Your task to perform on an android device: Open calendar and show me the second week of next month Image 0: 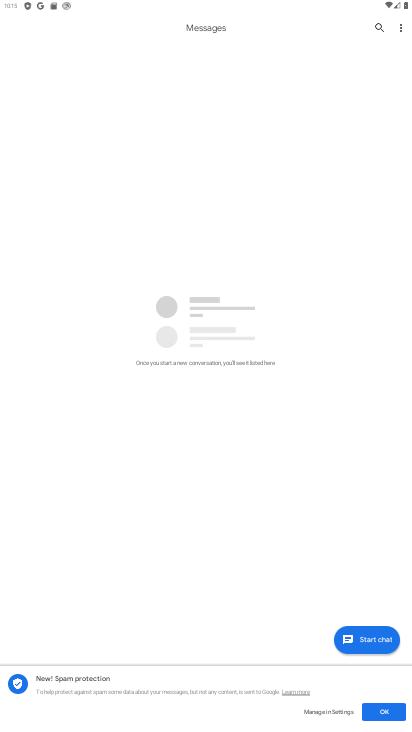
Step 0: press home button
Your task to perform on an android device: Open calendar and show me the second week of next month Image 1: 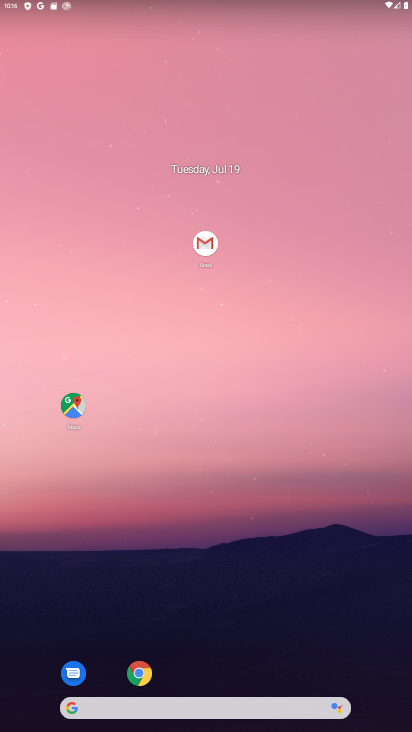
Step 1: drag from (327, 578) to (283, 192)
Your task to perform on an android device: Open calendar and show me the second week of next month Image 2: 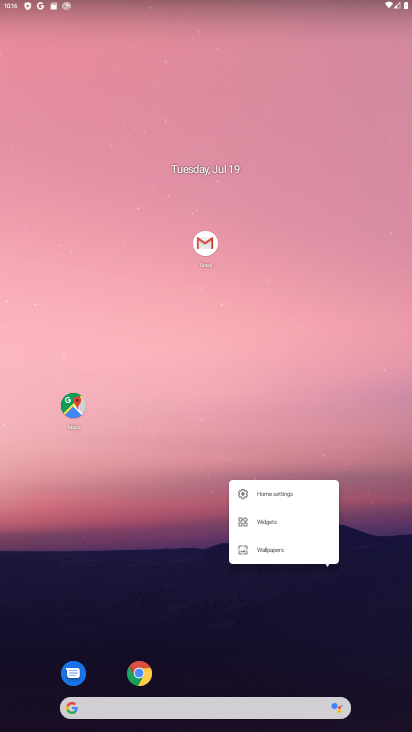
Step 2: drag from (138, 542) to (207, 398)
Your task to perform on an android device: Open calendar and show me the second week of next month Image 3: 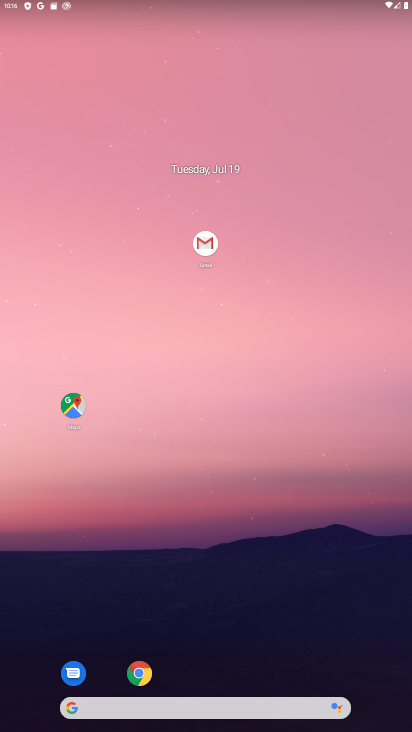
Step 3: drag from (215, 579) to (176, 600)
Your task to perform on an android device: Open calendar and show me the second week of next month Image 4: 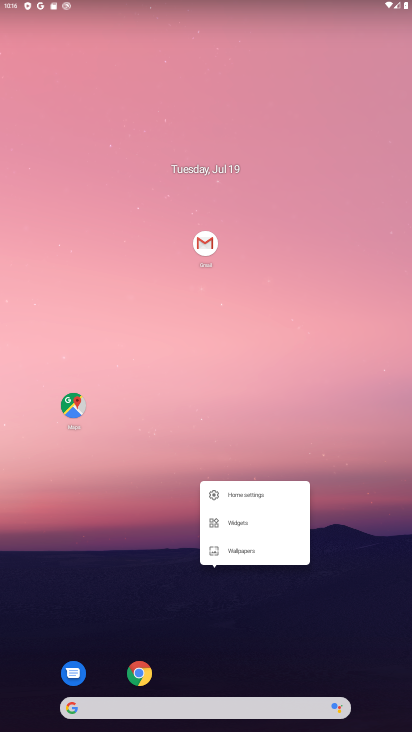
Step 4: drag from (201, 655) to (193, 335)
Your task to perform on an android device: Open calendar and show me the second week of next month Image 5: 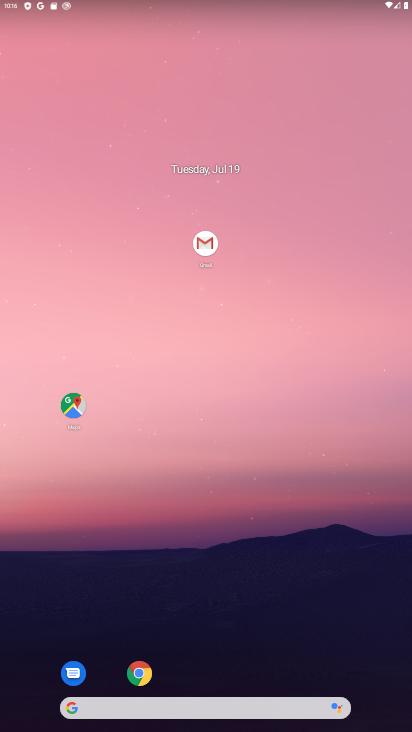
Step 5: drag from (235, 588) to (226, 362)
Your task to perform on an android device: Open calendar and show me the second week of next month Image 6: 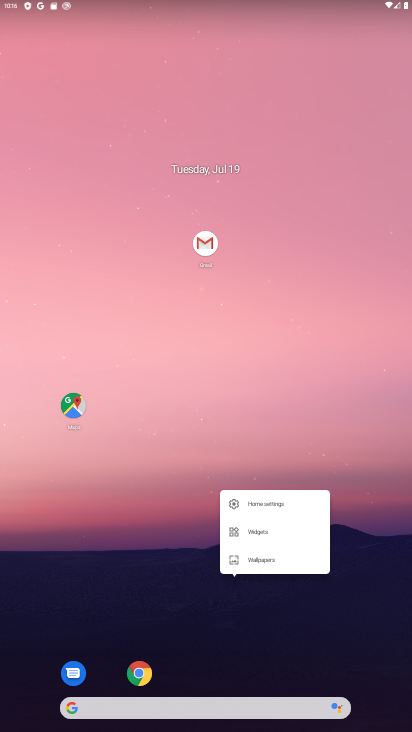
Step 6: click (226, 362)
Your task to perform on an android device: Open calendar and show me the second week of next month Image 7: 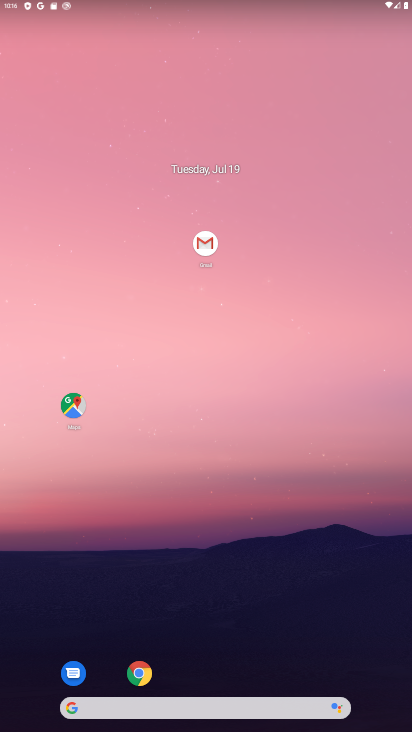
Step 7: drag from (186, 571) to (176, 342)
Your task to perform on an android device: Open calendar and show me the second week of next month Image 8: 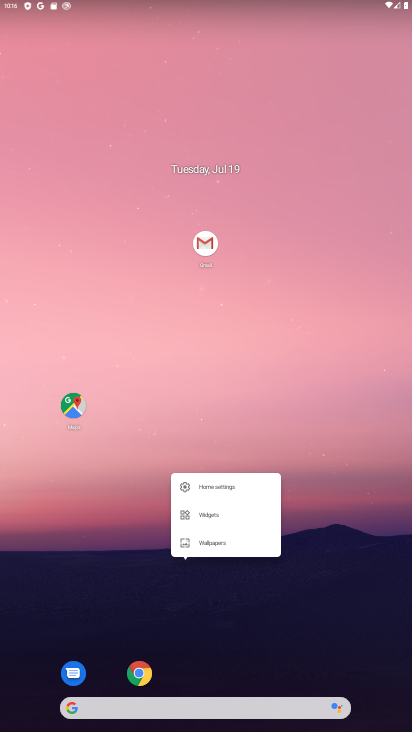
Step 8: click (289, 578)
Your task to perform on an android device: Open calendar and show me the second week of next month Image 9: 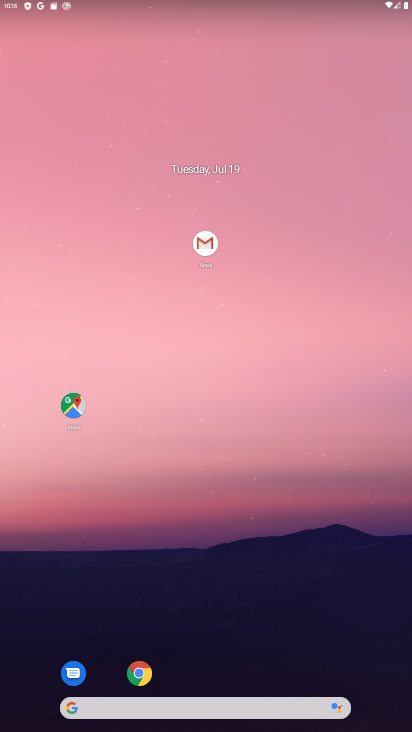
Step 9: drag from (364, 681) to (322, 30)
Your task to perform on an android device: Open calendar and show me the second week of next month Image 10: 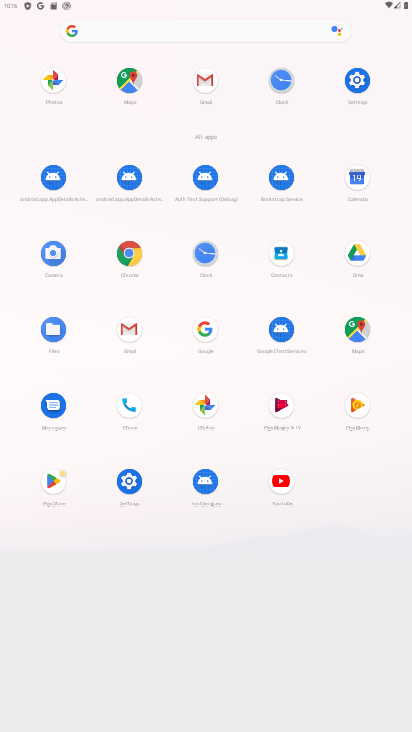
Step 10: click (365, 177)
Your task to perform on an android device: Open calendar and show me the second week of next month Image 11: 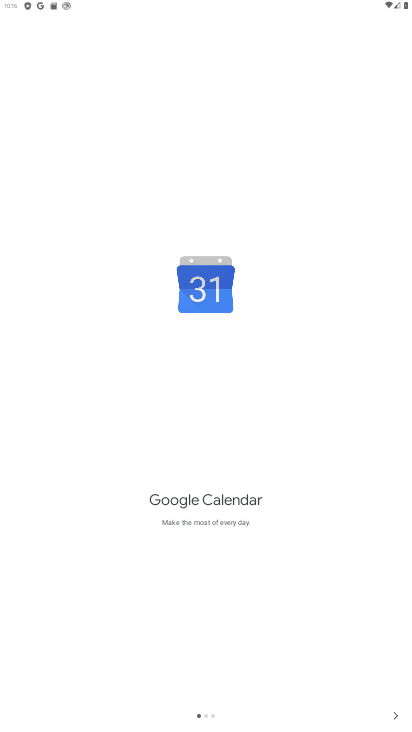
Step 11: click (391, 716)
Your task to perform on an android device: Open calendar and show me the second week of next month Image 12: 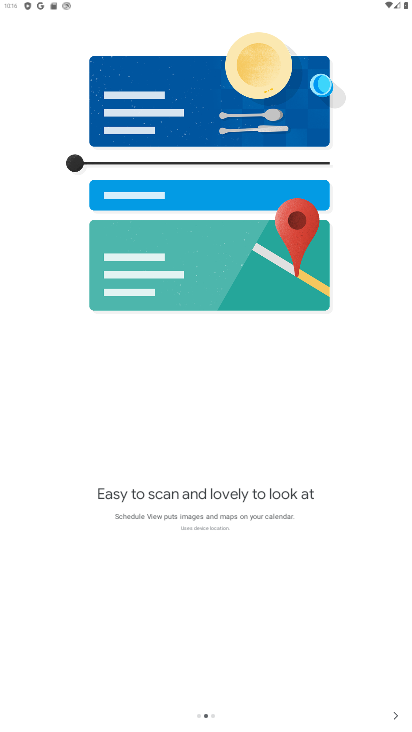
Step 12: click (391, 716)
Your task to perform on an android device: Open calendar and show me the second week of next month Image 13: 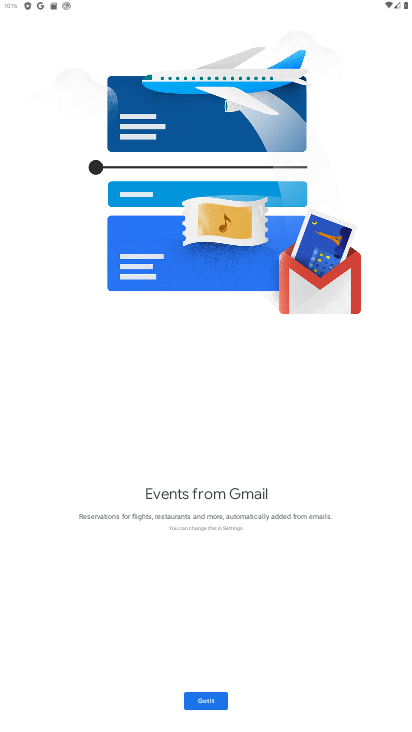
Step 13: click (218, 697)
Your task to perform on an android device: Open calendar and show me the second week of next month Image 14: 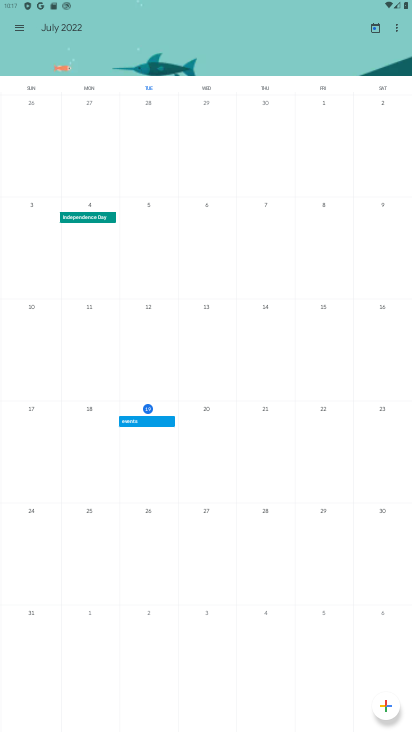
Step 14: click (22, 33)
Your task to perform on an android device: Open calendar and show me the second week of next month Image 15: 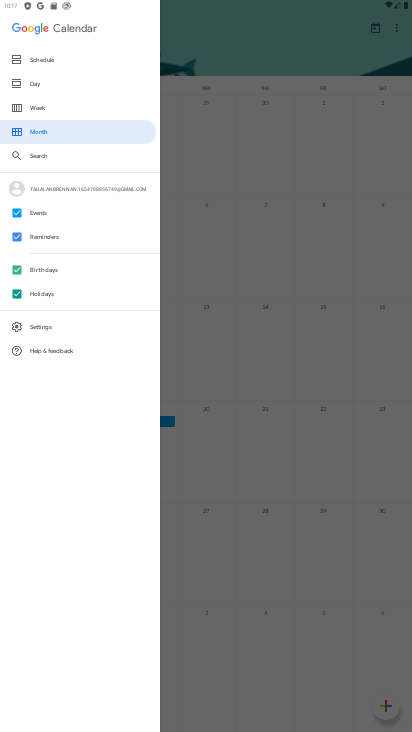
Step 15: click (51, 102)
Your task to perform on an android device: Open calendar and show me the second week of next month Image 16: 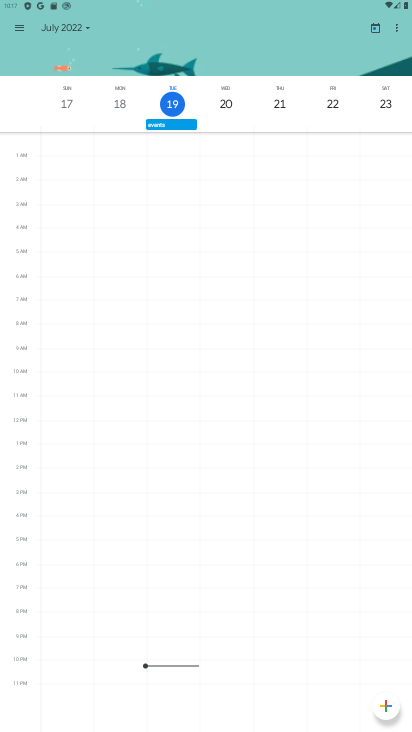
Step 16: click (55, 31)
Your task to perform on an android device: Open calendar and show me the second week of next month Image 17: 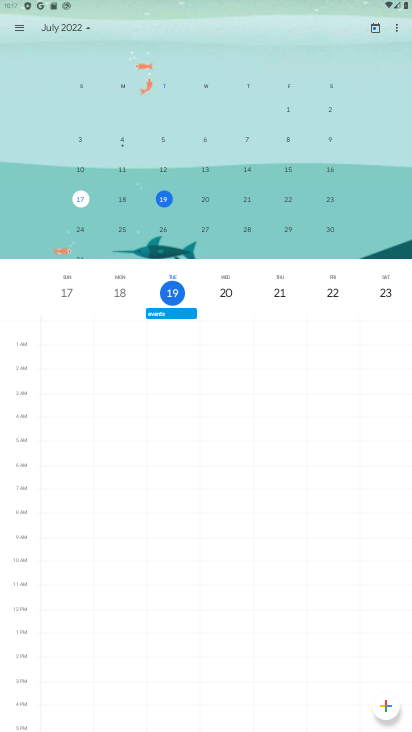
Step 17: drag from (324, 202) to (29, 181)
Your task to perform on an android device: Open calendar and show me the second week of next month Image 18: 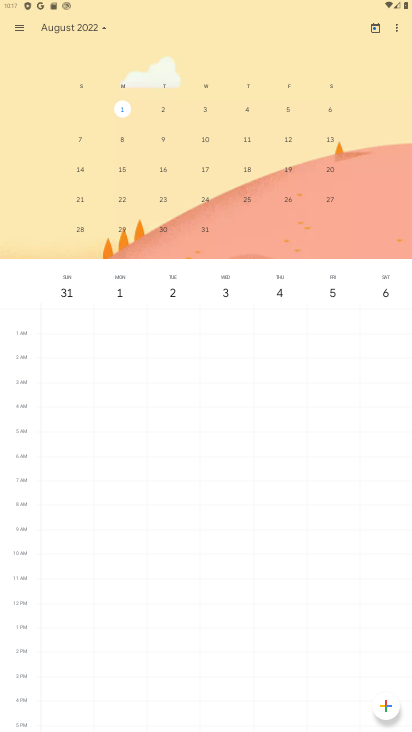
Step 18: click (164, 134)
Your task to perform on an android device: Open calendar and show me the second week of next month Image 19: 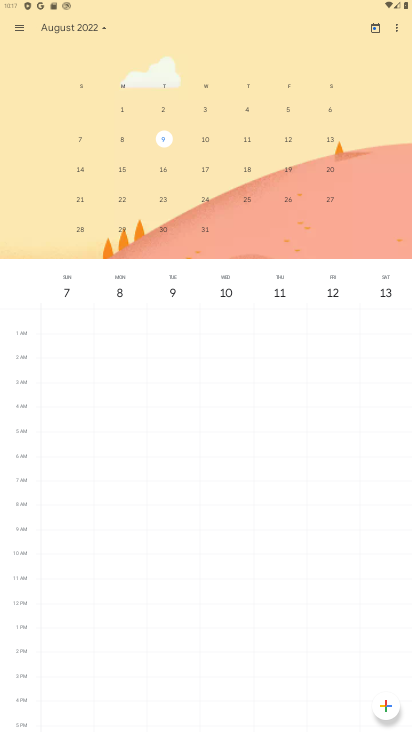
Step 19: task complete